Your task to perform on an android device: toggle show notifications on the lock screen Image 0: 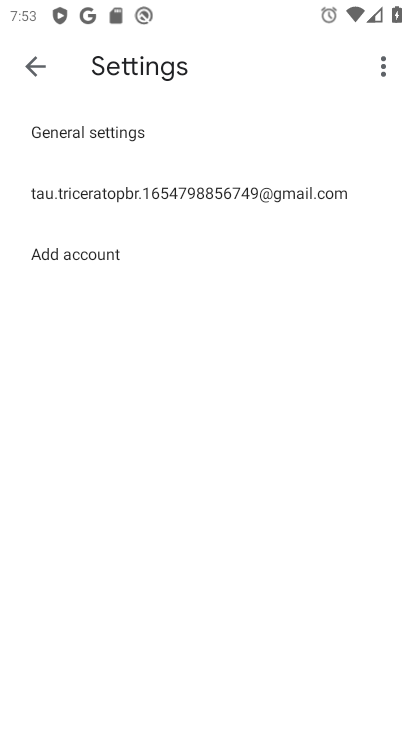
Step 0: press home button
Your task to perform on an android device: toggle show notifications on the lock screen Image 1: 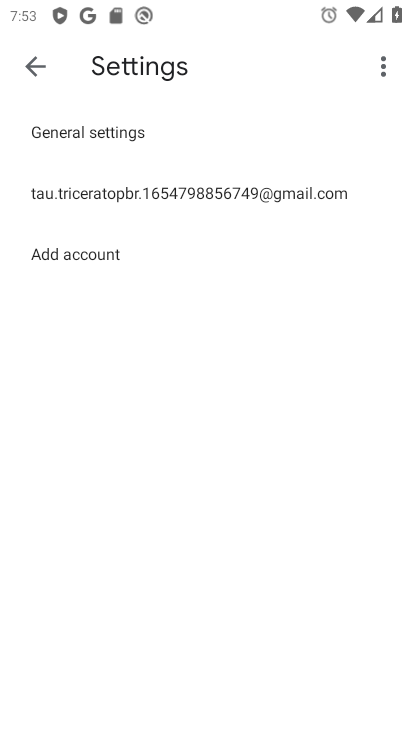
Step 1: press home button
Your task to perform on an android device: toggle show notifications on the lock screen Image 2: 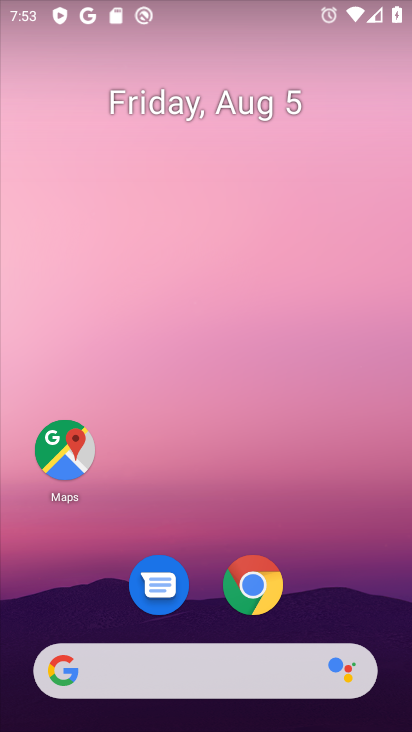
Step 2: drag from (340, 438) to (346, 70)
Your task to perform on an android device: toggle show notifications on the lock screen Image 3: 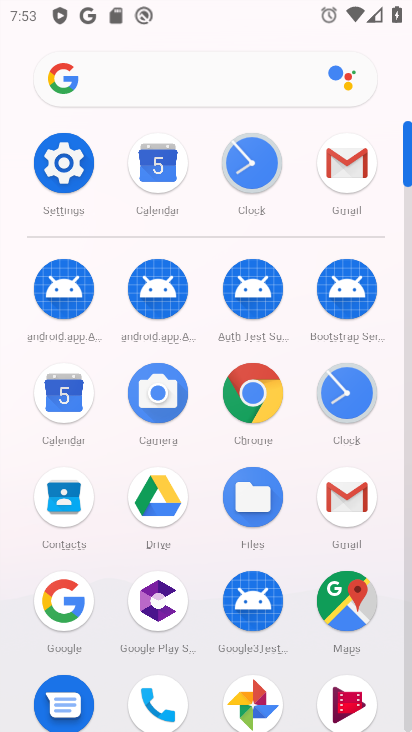
Step 3: click (62, 159)
Your task to perform on an android device: toggle show notifications on the lock screen Image 4: 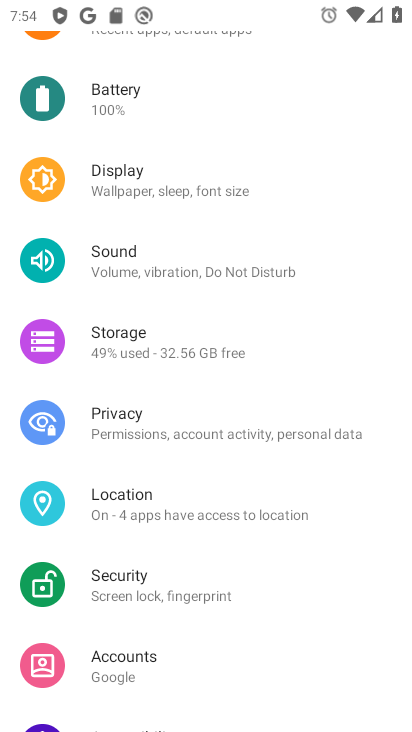
Step 4: drag from (237, 230) to (238, 669)
Your task to perform on an android device: toggle show notifications on the lock screen Image 5: 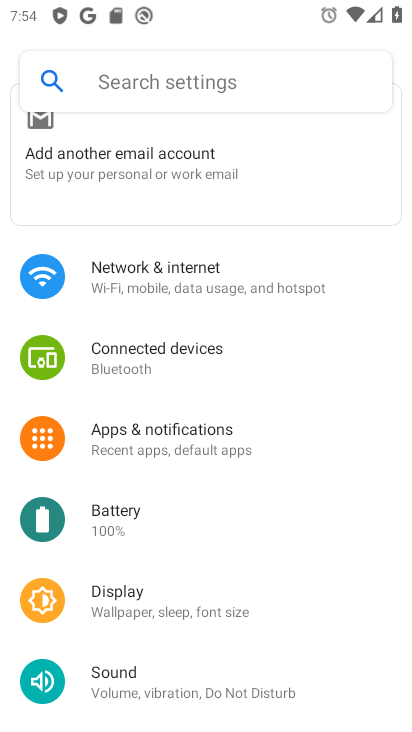
Step 5: click (213, 424)
Your task to perform on an android device: toggle show notifications on the lock screen Image 6: 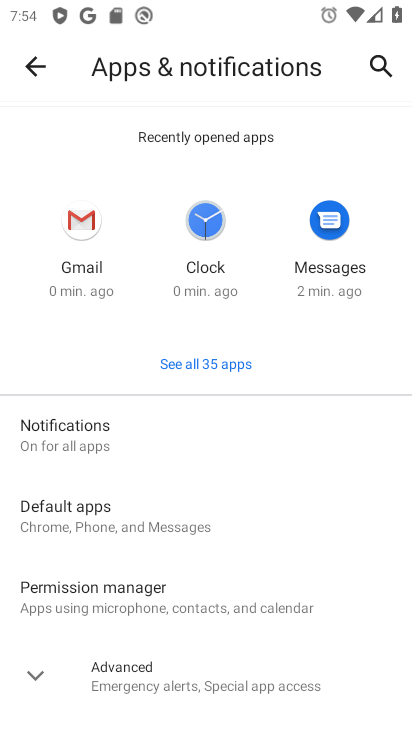
Step 6: click (74, 436)
Your task to perform on an android device: toggle show notifications on the lock screen Image 7: 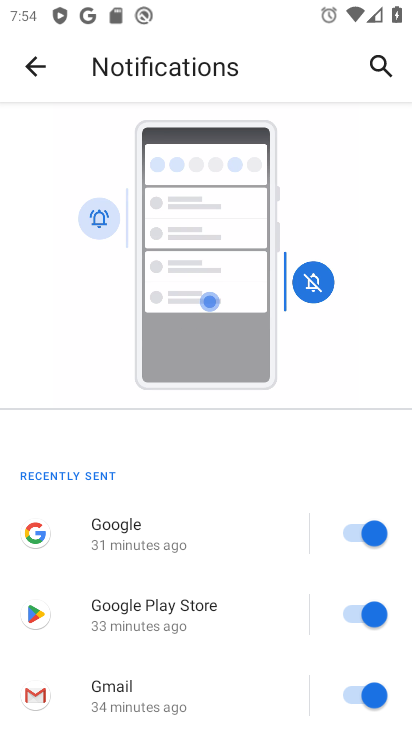
Step 7: drag from (258, 640) to (246, 189)
Your task to perform on an android device: toggle show notifications on the lock screen Image 8: 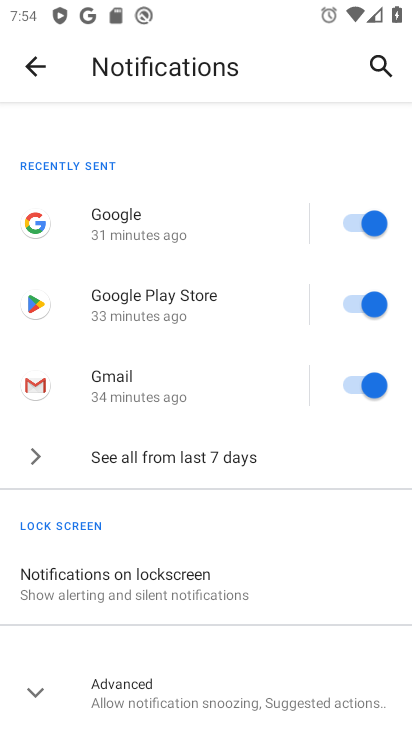
Step 8: click (207, 587)
Your task to perform on an android device: toggle show notifications on the lock screen Image 9: 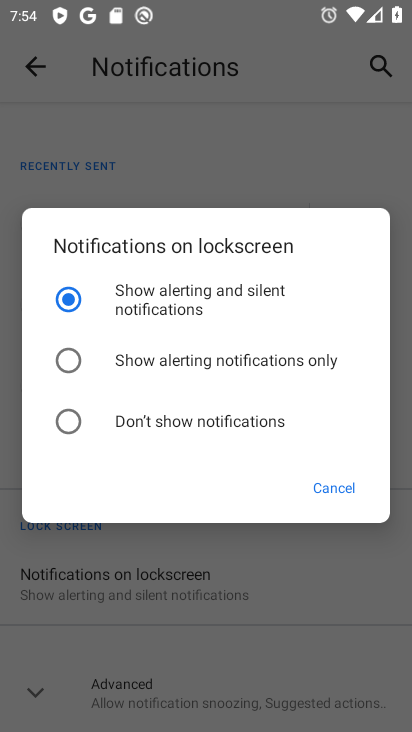
Step 9: click (68, 421)
Your task to perform on an android device: toggle show notifications on the lock screen Image 10: 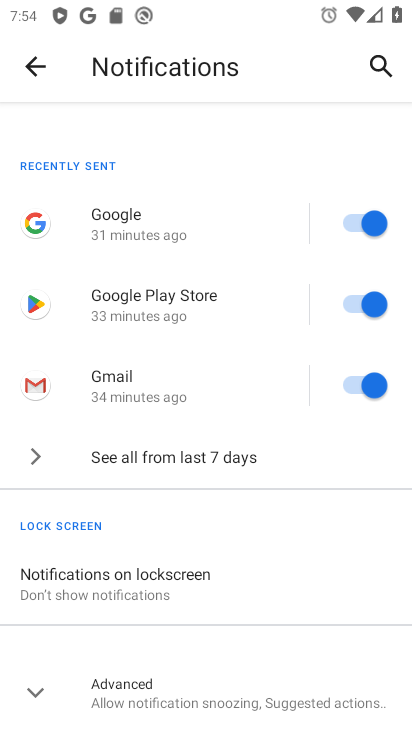
Step 10: task complete